Your task to perform on an android device: change the clock style Image 0: 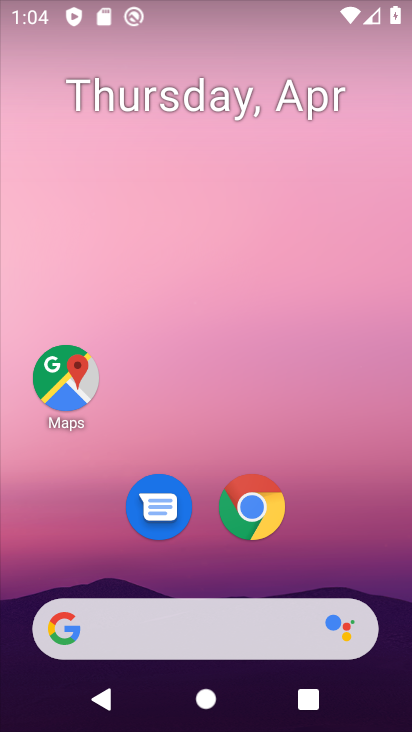
Step 0: drag from (344, 527) to (339, 84)
Your task to perform on an android device: change the clock style Image 1: 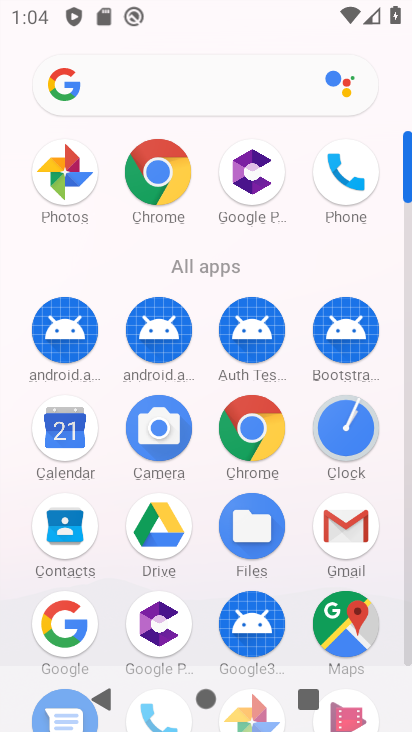
Step 1: click (333, 419)
Your task to perform on an android device: change the clock style Image 2: 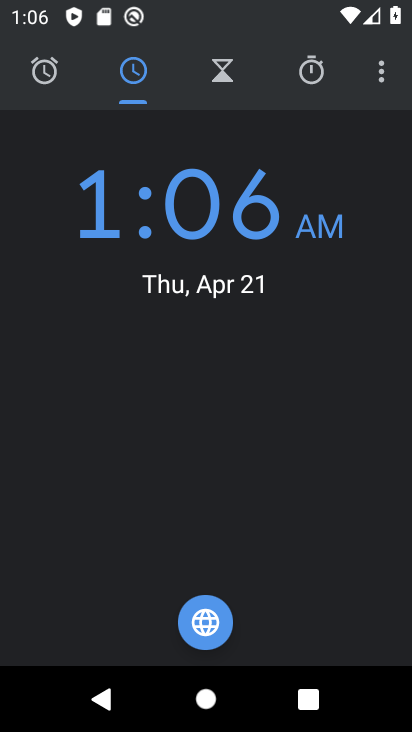
Step 2: click (384, 60)
Your task to perform on an android device: change the clock style Image 3: 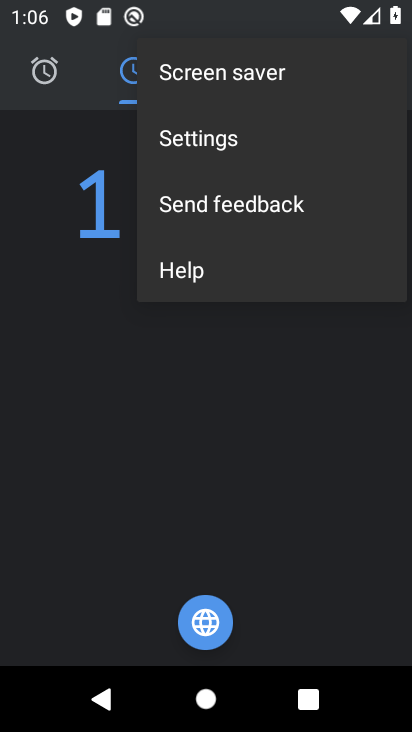
Step 3: click (322, 130)
Your task to perform on an android device: change the clock style Image 4: 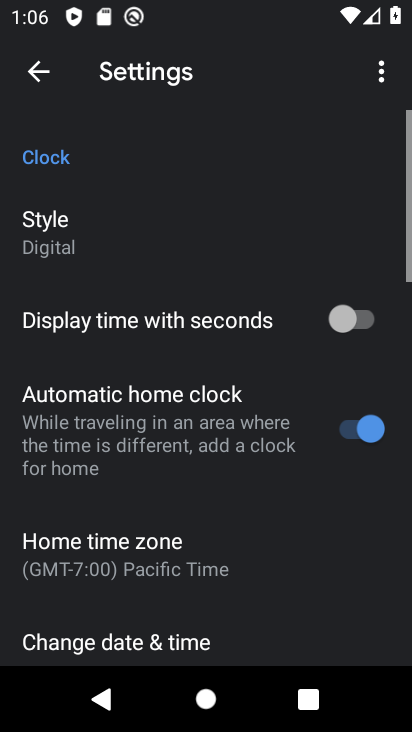
Step 4: click (103, 218)
Your task to perform on an android device: change the clock style Image 5: 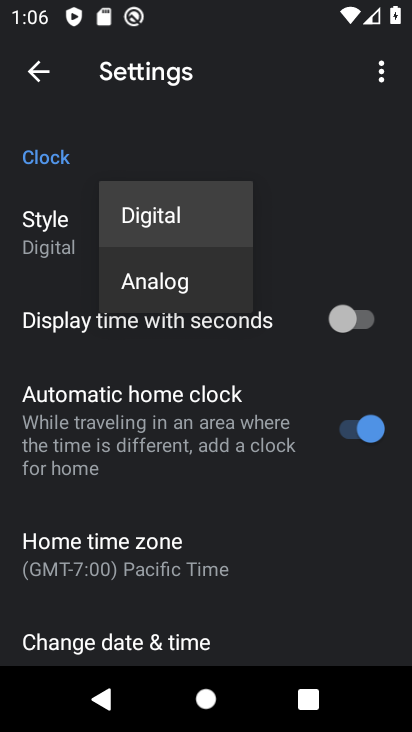
Step 5: click (157, 280)
Your task to perform on an android device: change the clock style Image 6: 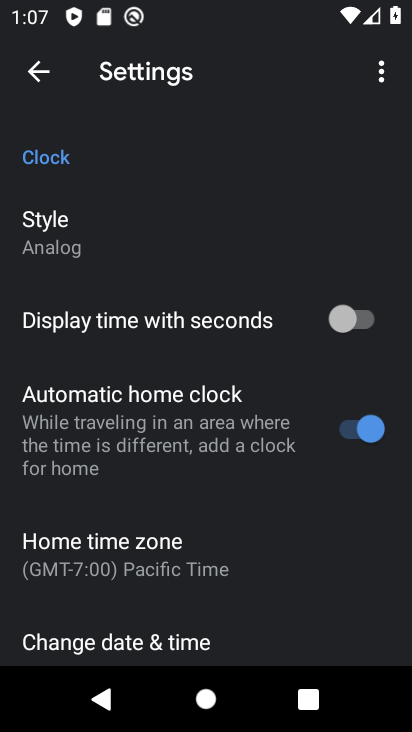
Step 6: task complete